Your task to perform on an android device: open a bookmark in the chrome app Image 0: 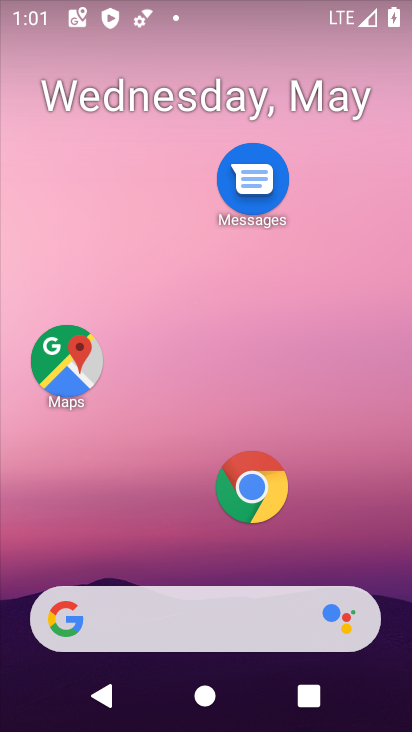
Step 0: click (249, 500)
Your task to perform on an android device: open a bookmark in the chrome app Image 1: 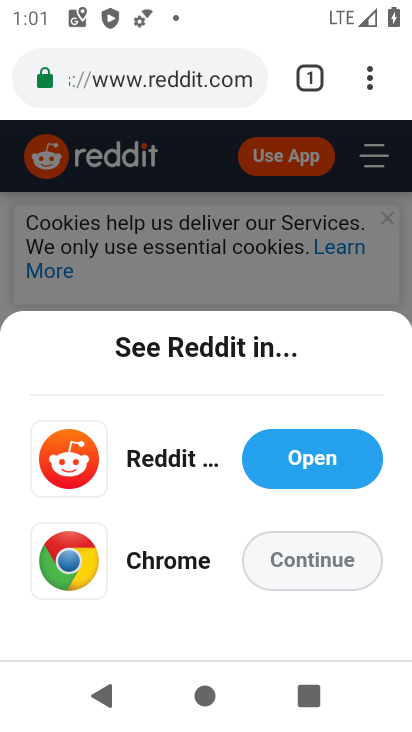
Step 1: click (370, 79)
Your task to perform on an android device: open a bookmark in the chrome app Image 2: 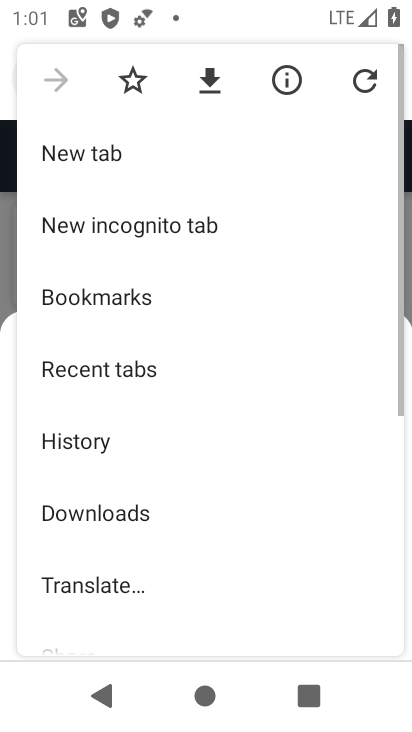
Step 2: click (130, 291)
Your task to perform on an android device: open a bookmark in the chrome app Image 3: 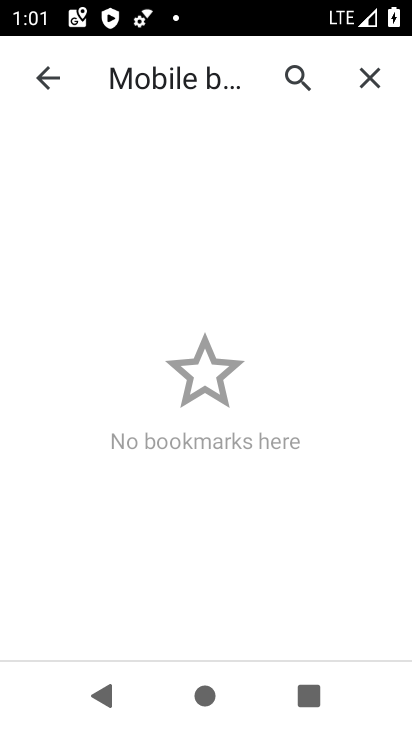
Step 3: task complete